Your task to perform on an android device: toggle data saver in the chrome app Image 0: 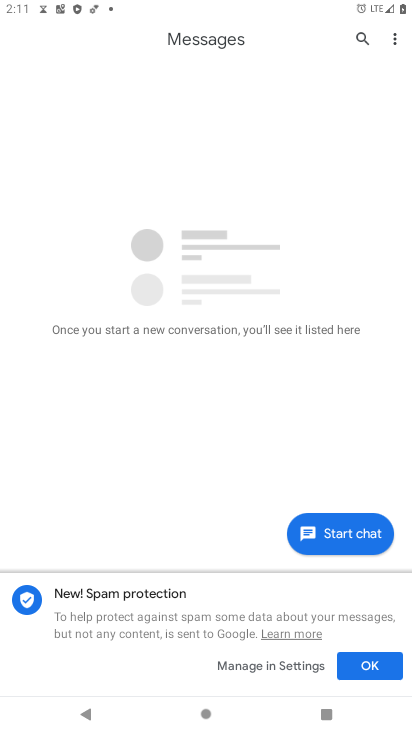
Step 0: press home button
Your task to perform on an android device: toggle data saver in the chrome app Image 1: 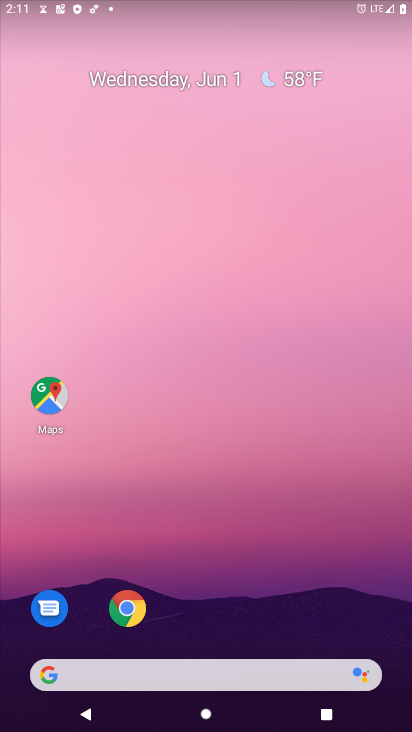
Step 1: click (131, 608)
Your task to perform on an android device: toggle data saver in the chrome app Image 2: 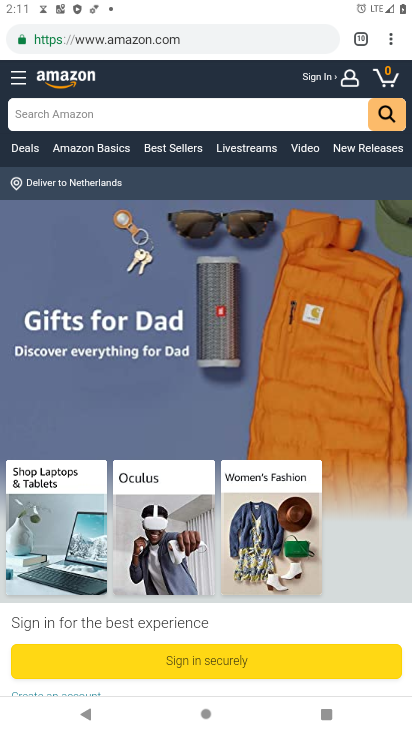
Step 2: click (394, 39)
Your task to perform on an android device: toggle data saver in the chrome app Image 3: 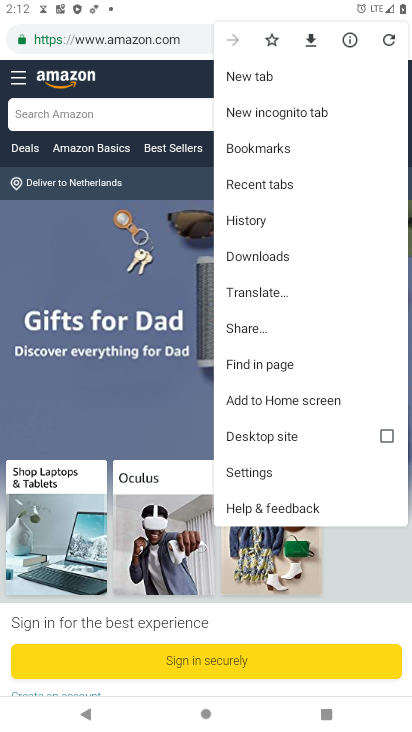
Step 3: click (284, 465)
Your task to perform on an android device: toggle data saver in the chrome app Image 4: 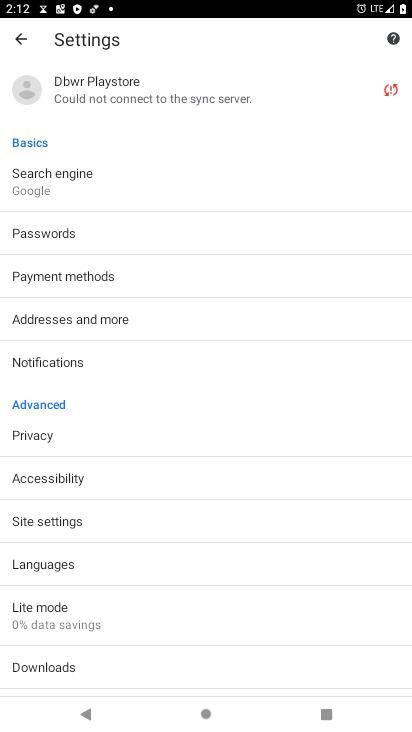
Step 4: press back button
Your task to perform on an android device: toggle data saver in the chrome app Image 5: 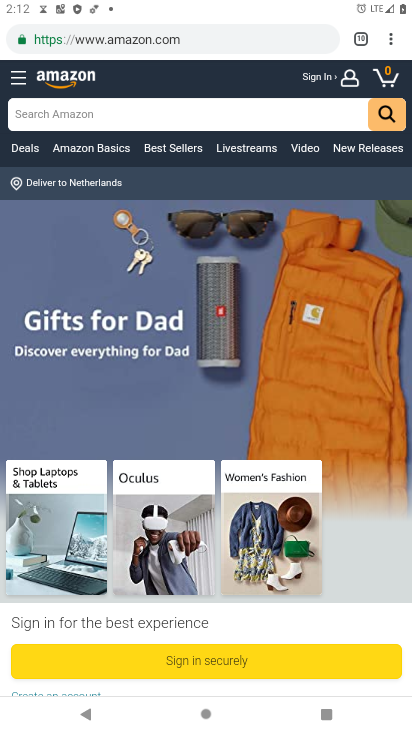
Step 5: click (389, 33)
Your task to perform on an android device: toggle data saver in the chrome app Image 6: 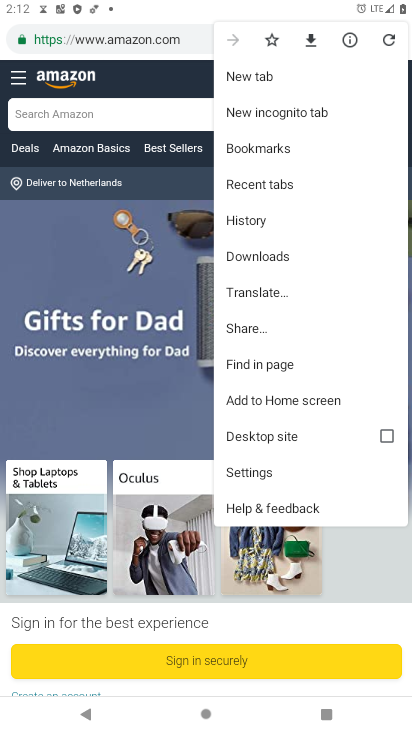
Step 6: click (271, 468)
Your task to perform on an android device: toggle data saver in the chrome app Image 7: 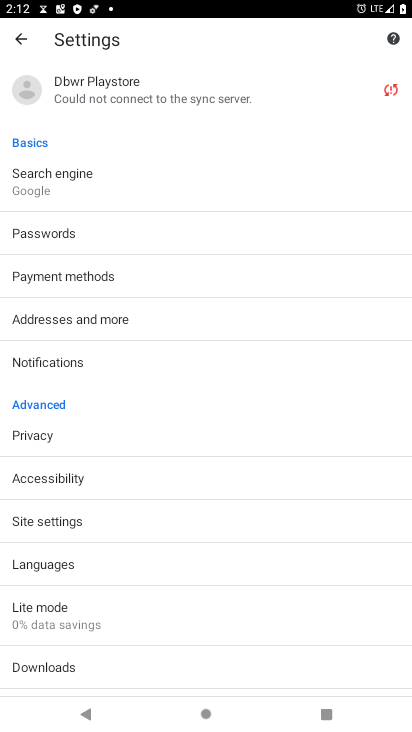
Step 7: click (112, 428)
Your task to perform on an android device: toggle data saver in the chrome app Image 8: 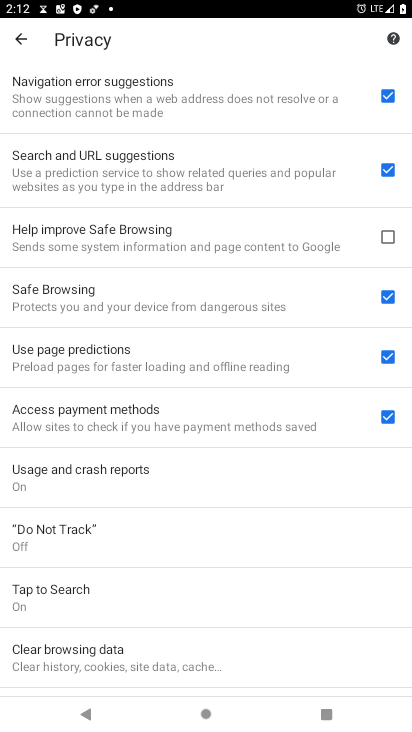
Step 8: drag from (83, 541) to (52, 227)
Your task to perform on an android device: toggle data saver in the chrome app Image 9: 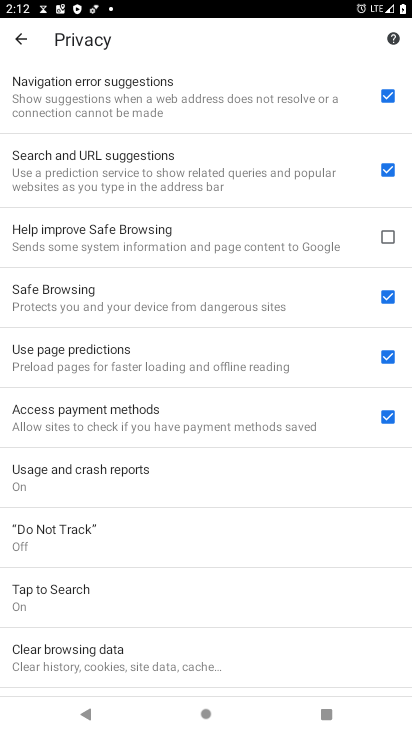
Step 9: drag from (142, 223) to (187, 625)
Your task to perform on an android device: toggle data saver in the chrome app Image 10: 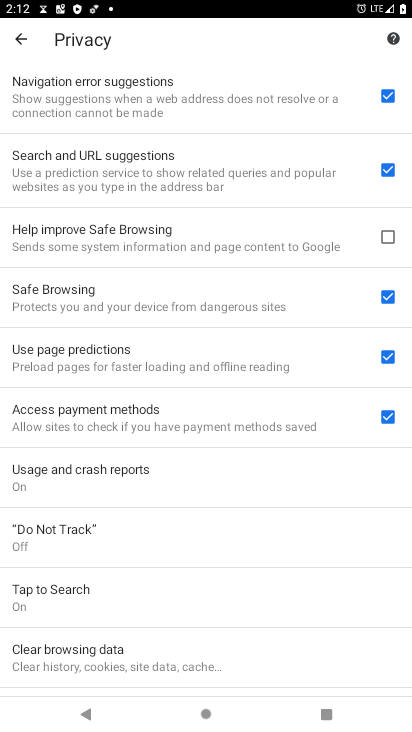
Step 10: press back button
Your task to perform on an android device: toggle data saver in the chrome app Image 11: 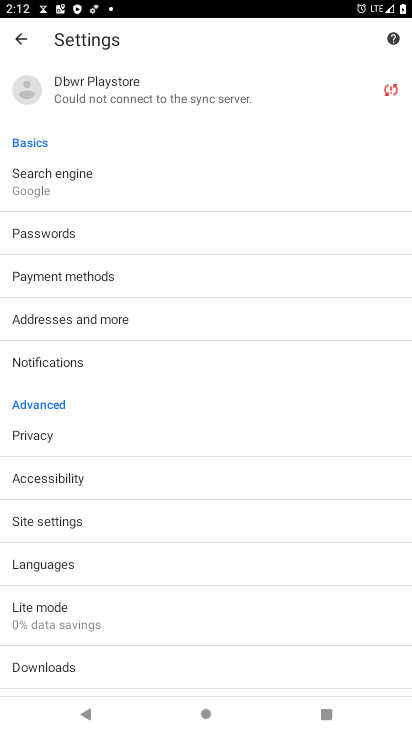
Step 11: click (62, 490)
Your task to perform on an android device: toggle data saver in the chrome app Image 12: 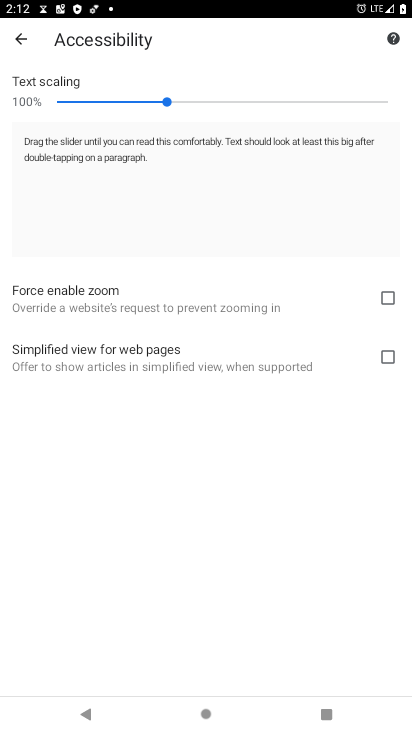
Step 12: press back button
Your task to perform on an android device: toggle data saver in the chrome app Image 13: 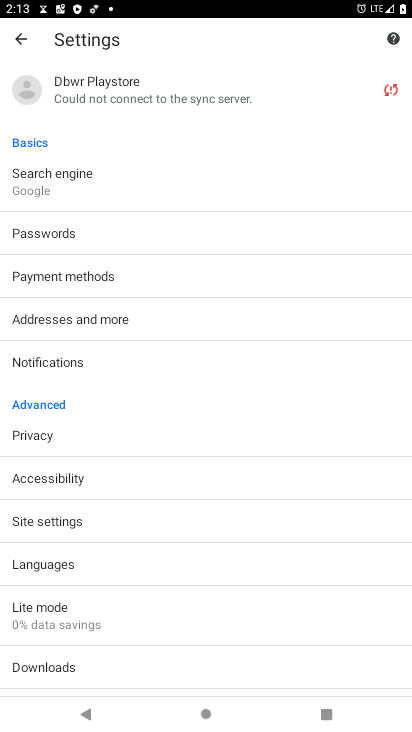
Step 13: drag from (166, 590) to (147, 272)
Your task to perform on an android device: toggle data saver in the chrome app Image 14: 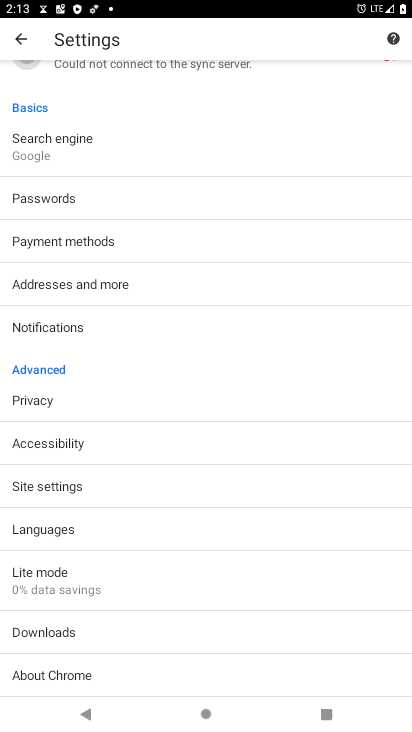
Step 14: click (108, 492)
Your task to perform on an android device: toggle data saver in the chrome app Image 15: 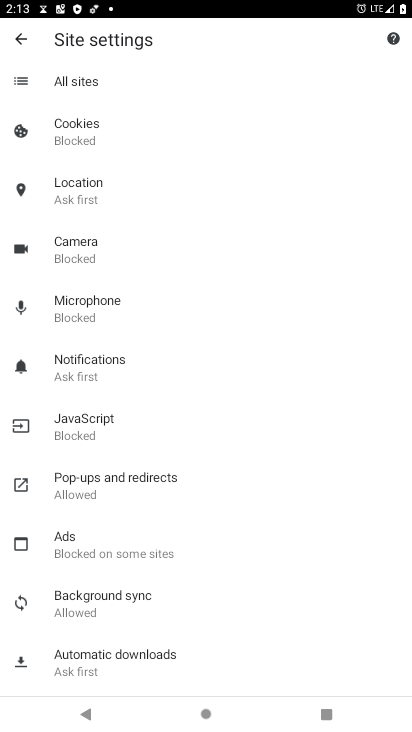
Step 15: task complete